Your task to perform on an android device: Go to Reddit.com Image 0: 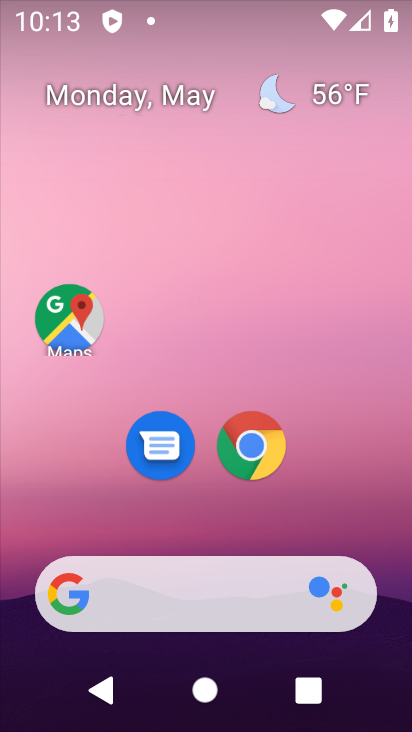
Step 0: drag from (243, 552) to (239, 225)
Your task to perform on an android device: Go to Reddit.com Image 1: 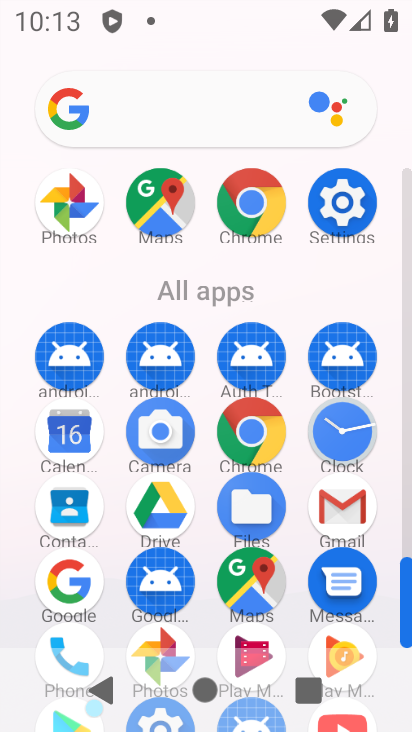
Step 1: click (60, 588)
Your task to perform on an android device: Go to Reddit.com Image 2: 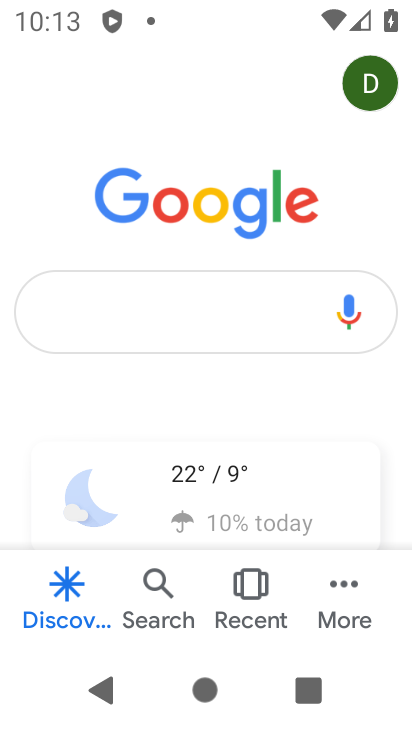
Step 2: click (207, 313)
Your task to perform on an android device: Go to Reddit.com Image 3: 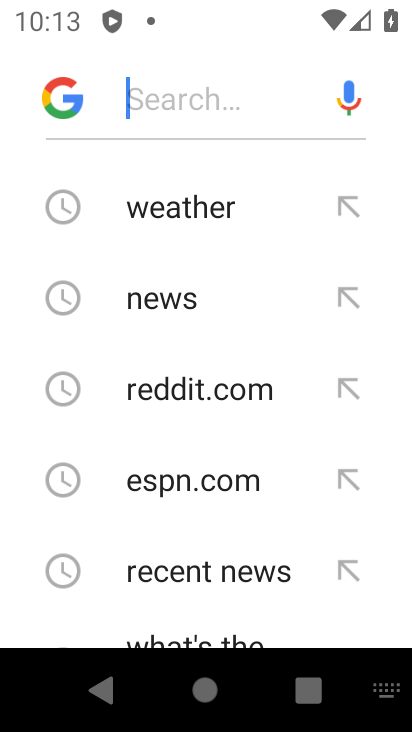
Step 3: click (183, 385)
Your task to perform on an android device: Go to Reddit.com Image 4: 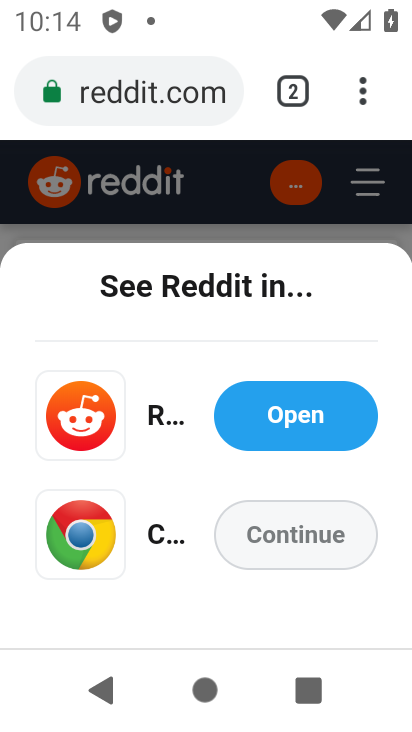
Step 4: task complete